Your task to perform on an android device: set the stopwatch Image 0: 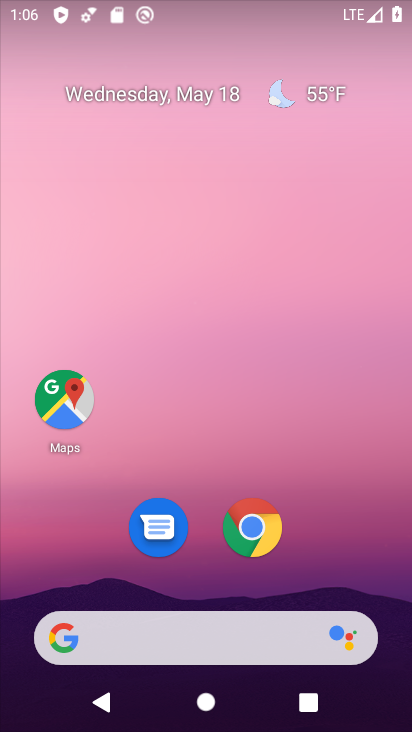
Step 0: press home button
Your task to perform on an android device: set the stopwatch Image 1: 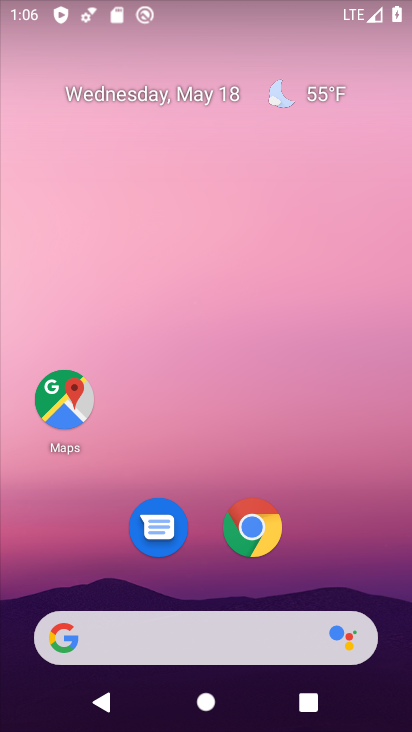
Step 1: drag from (323, 552) to (235, 82)
Your task to perform on an android device: set the stopwatch Image 2: 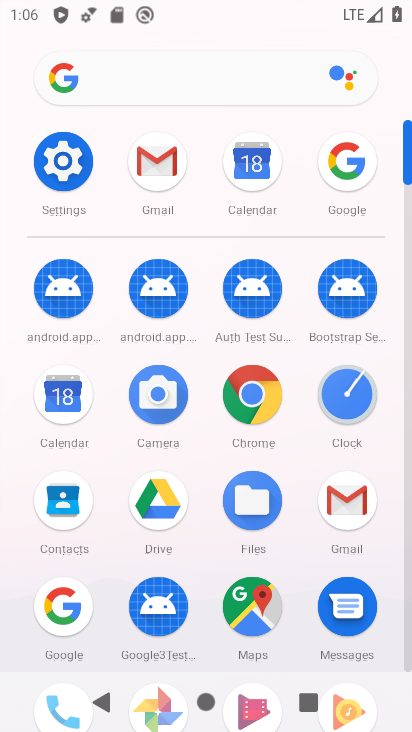
Step 2: click (343, 404)
Your task to perform on an android device: set the stopwatch Image 3: 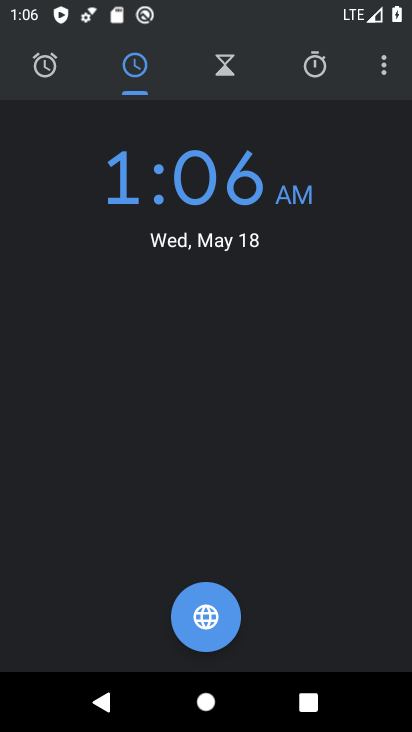
Step 3: click (297, 63)
Your task to perform on an android device: set the stopwatch Image 4: 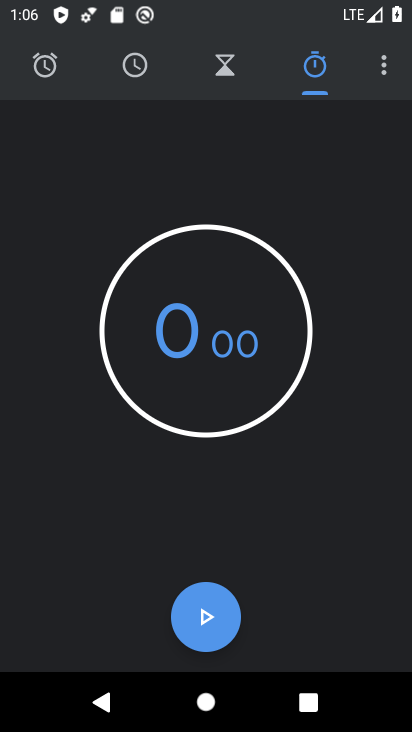
Step 4: task complete